Your task to perform on an android device: star an email in the gmail app Image 0: 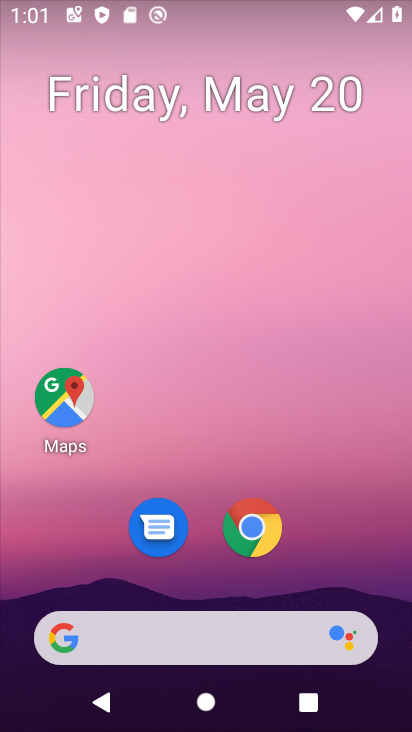
Step 0: press home button
Your task to perform on an android device: star an email in the gmail app Image 1: 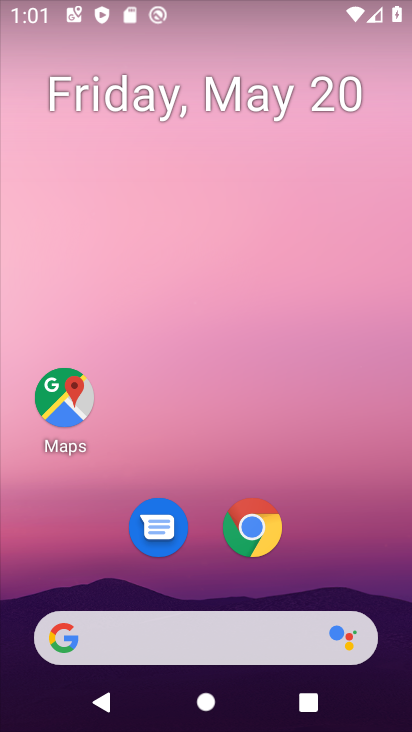
Step 1: drag from (150, 655) to (304, 124)
Your task to perform on an android device: star an email in the gmail app Image 2: 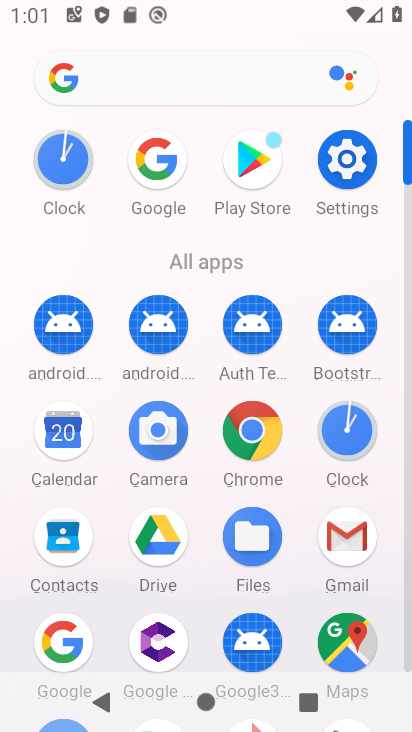
Step 2: click (346, 539)
Your task to perform on an android device: star an email in the gmail app Image 3: 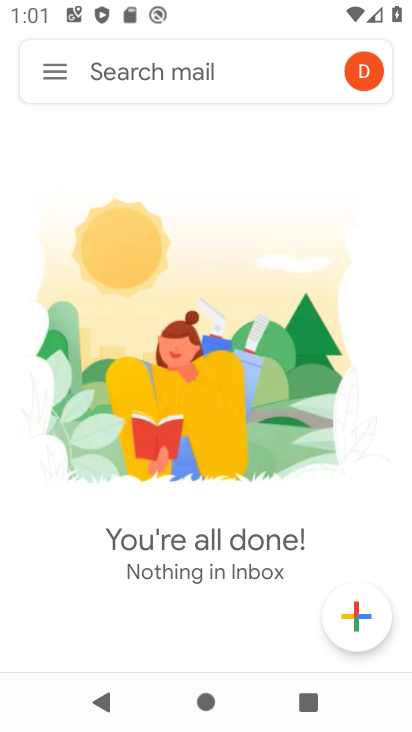
Step 3: task complete